Your task to perform on an android device: Search for panasonic triple a on costco.com, select the first entry, and add it to the cart. Image 0: 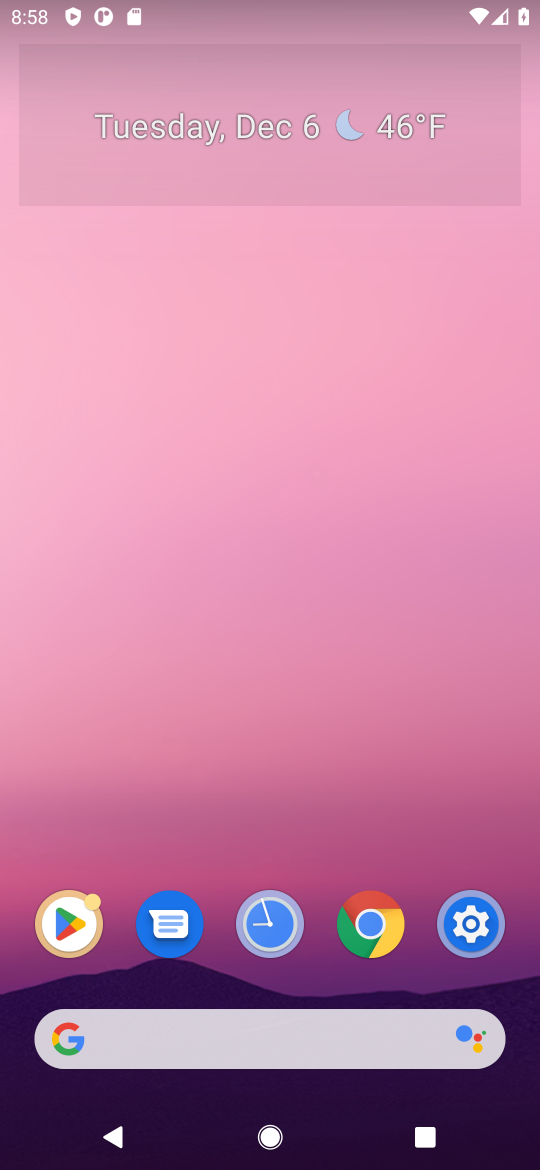
Step 0: click (272, 1056)
Your task to perform on an android device: Search for panasonic triple a on costco.com, select the first entry, and add it to the cart. Image 1: 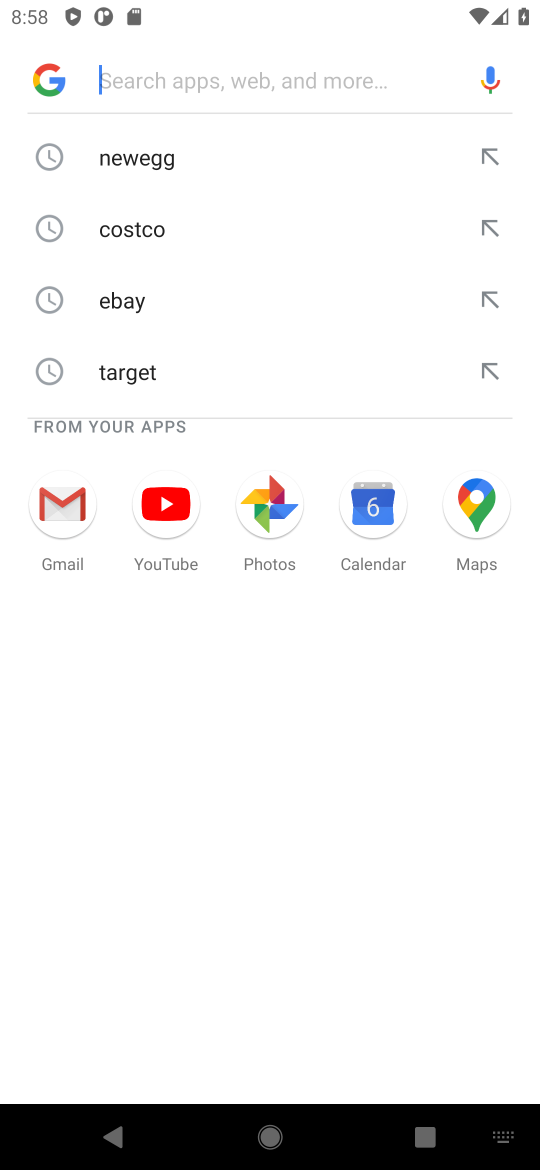
Step 1: type "cosstco.com"
Your task to perform on an android device: Search for panasonic triple a on costco.com, select the first entry, and add it to the cart. Image 2: 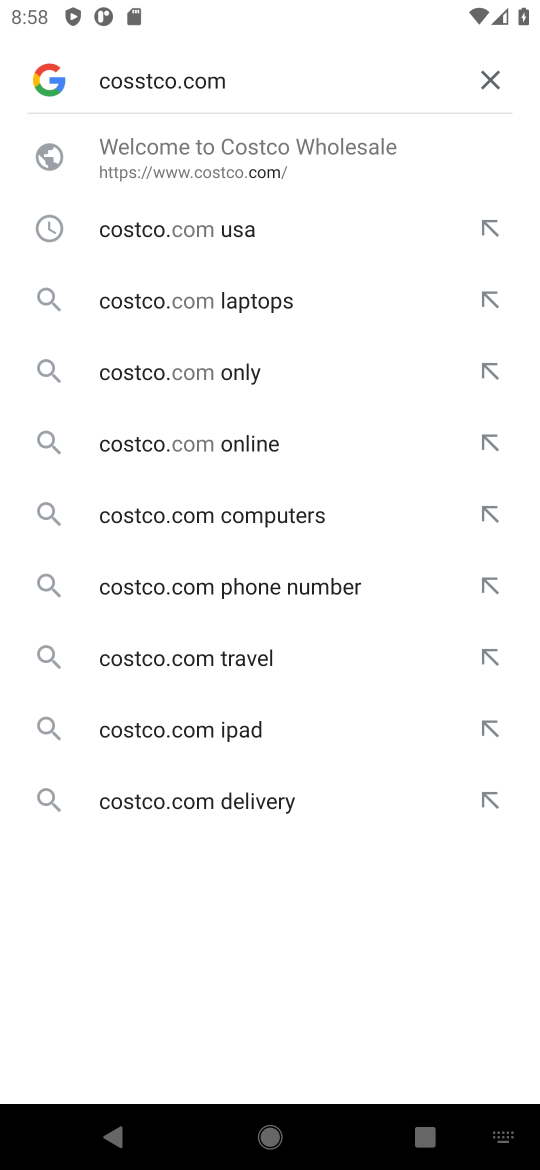
Step 2: click (236, 179)
Your task to perform on an android device: Search for panasonic triple a on costco.com, select the first entry, and add it to the cart. Image 3: 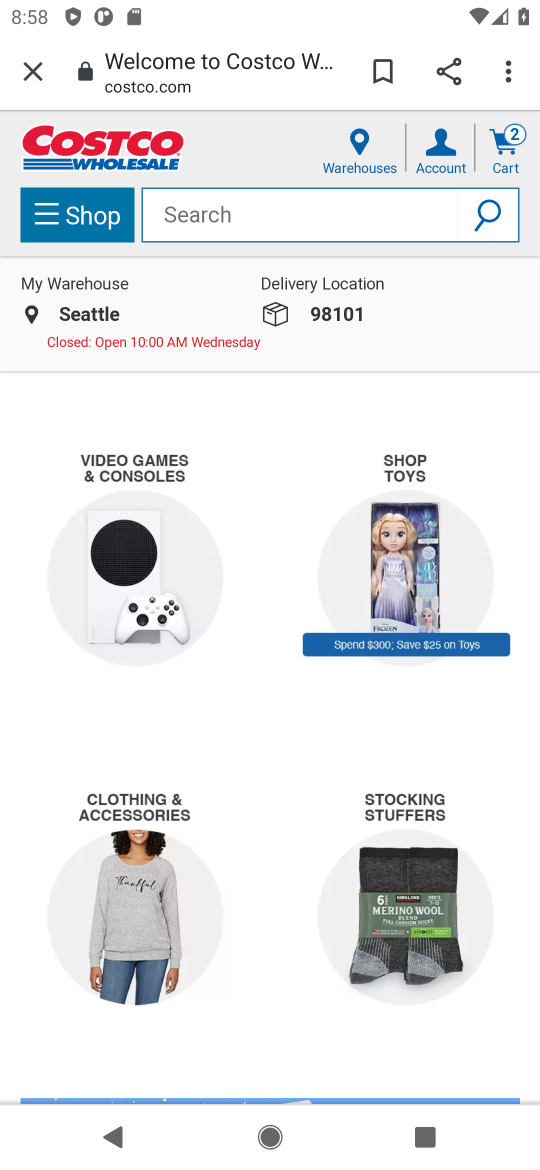
Step 3: click (231, 211)
Your task to perform on an android device: Search for panasonic triple a on costco.com, select the first entry, and add it to the cart. Image 4: 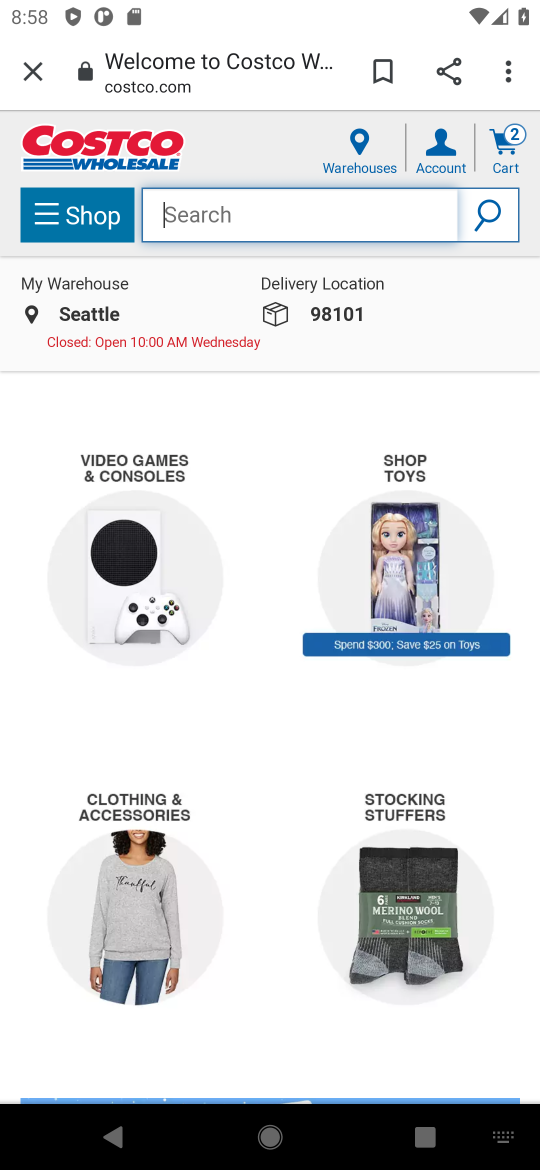
Step 4: type "panasonic"
Your task to perform on an android device: Search for panasonic triple a on costco.com, select the first entry, and add it to the cart. Image 5: 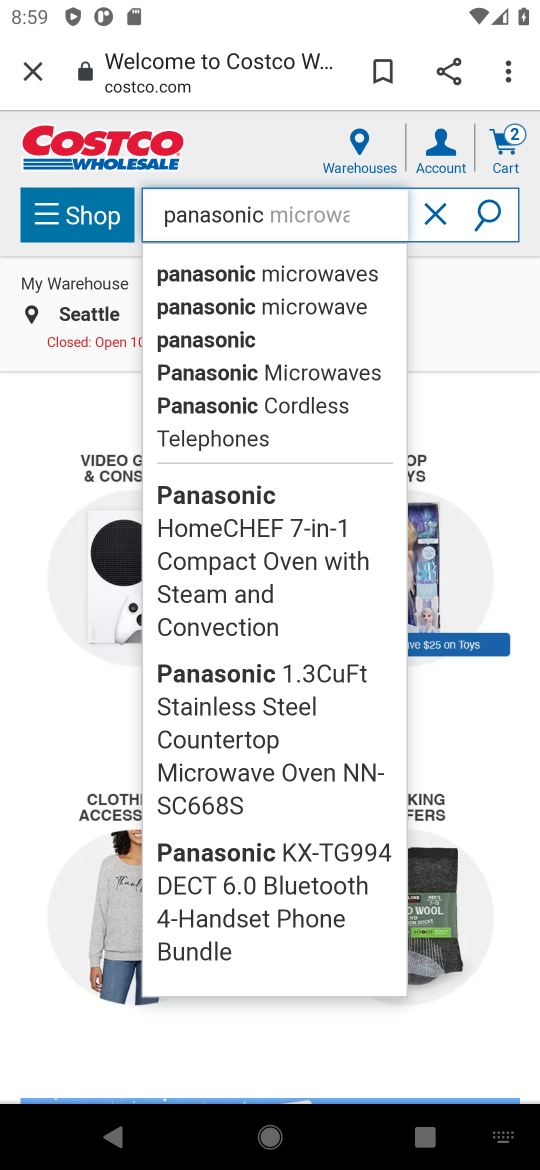
Step 5: type " triple a"
Your task to perform on an android device: Search for panasonic triple a on costco.com, select the first entry, and add it to the cart. Image 6: 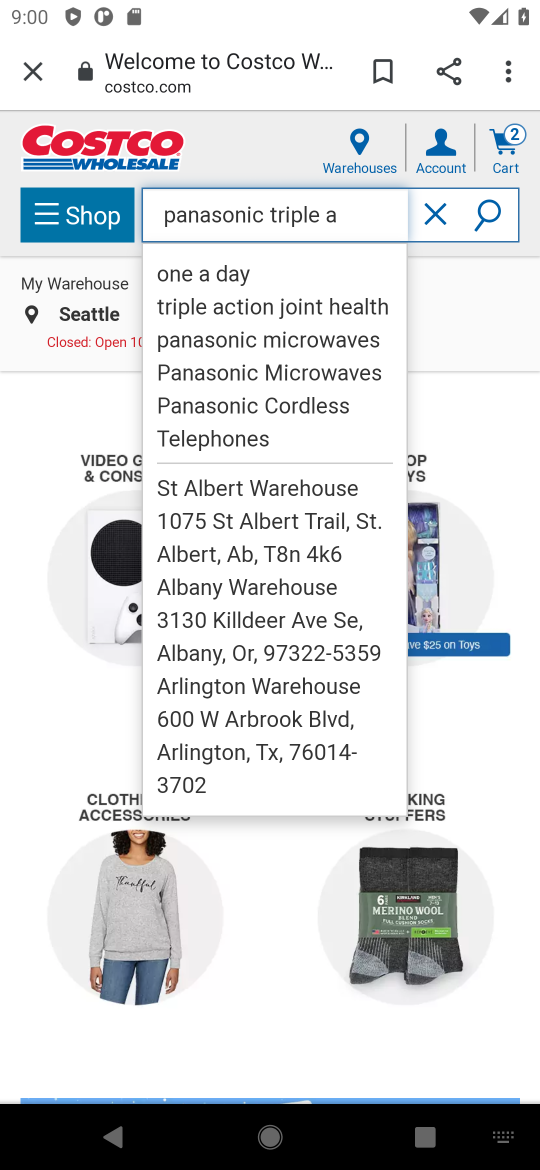
Step 6: click (495, 226)
Your task to perform on an android device: Search for panasonic triple a on costco.com, select the first entry, and add it to the cart. Image 7: 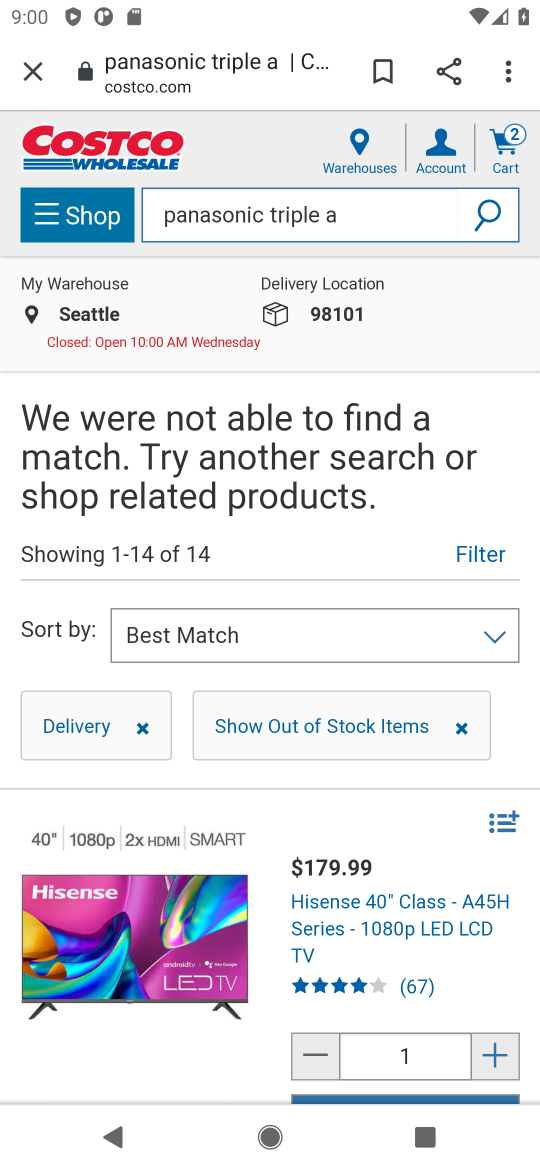
Step 7: task complete